Your task to perform on an android device: Search for sushi restaurants on Maps Image 0: 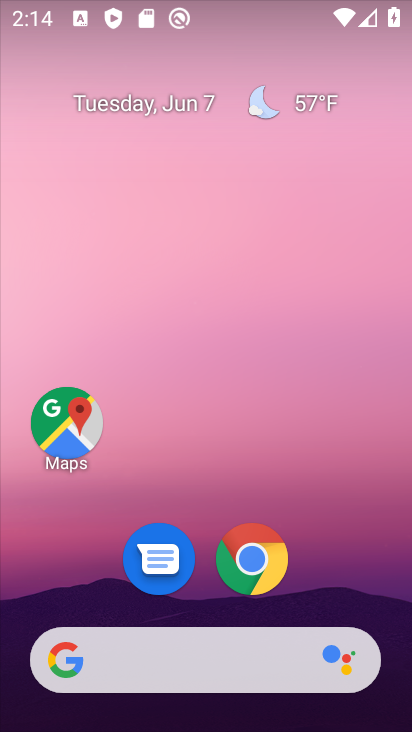
Step 0: click (49, 427)
Your task to perform on an android device: Search for sushi restaurants on Maps Image 1: 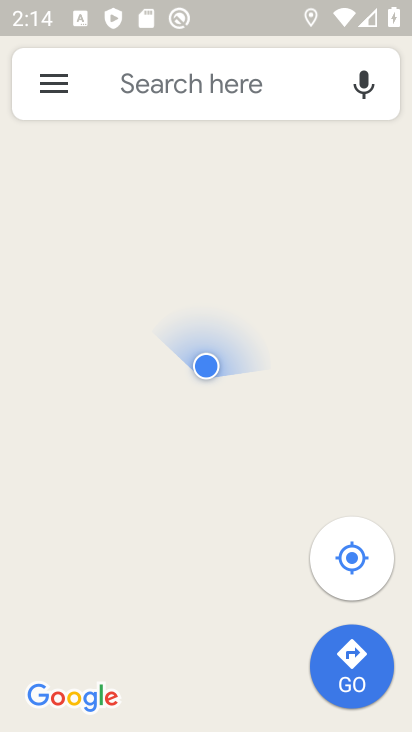
Step 1: click (195, 88)
Your task to perform on an android device: Search for sushi restaurants on Maps Image 2: 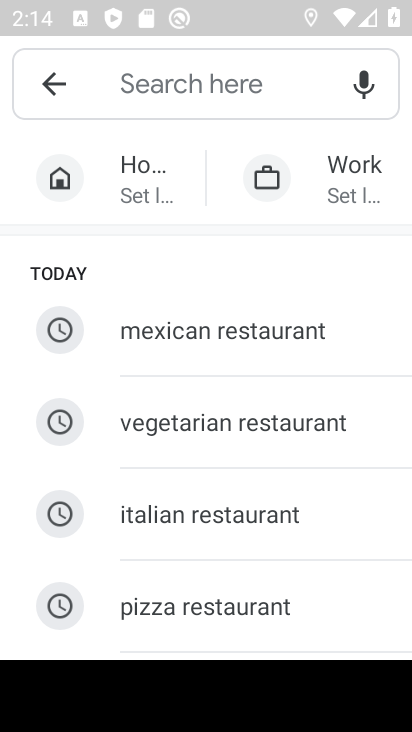
Step 2: drag from (16, 489) to (148, 137)
Your task to perform on an android device: Search for sushi restaurants on Maps Image 3: 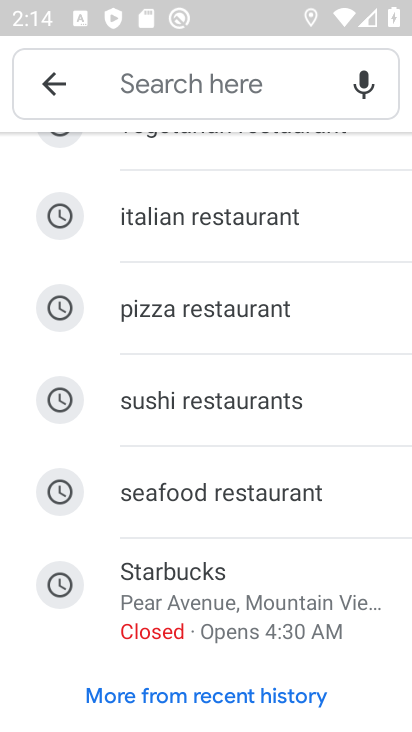
Step 3: click (155, 404)
Your task to perform on an android device: Search for sushi restaurants on Maps Image 4: 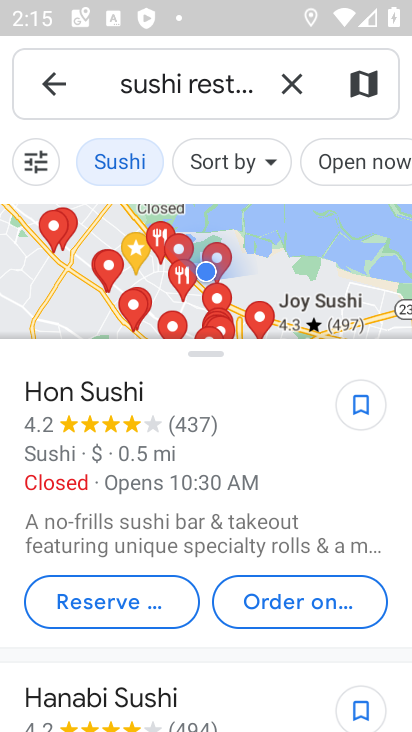
Step 4: task complete